Your task to perform on an android device: Open network settings Image 0: 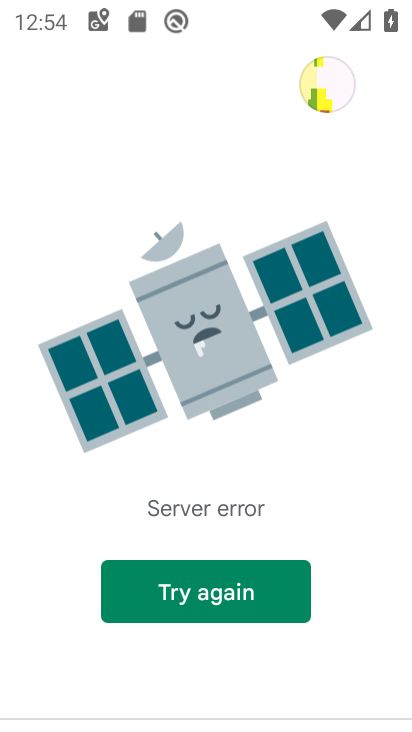
Step 0: press home button
Your task to perform on an android device: Open network settings Image 1: 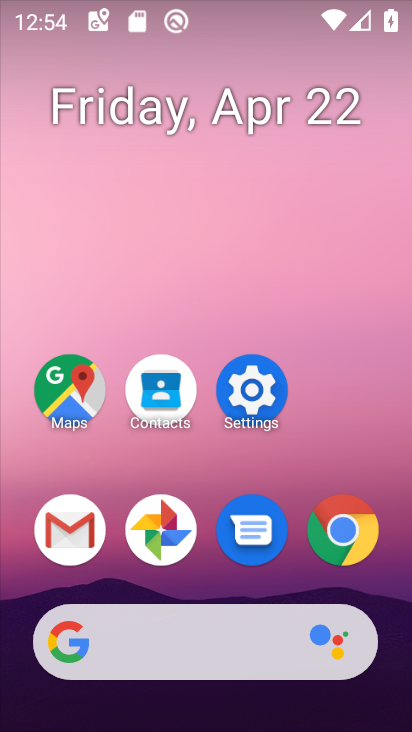
Step 1: click (250, 397)
Your task to perform on an android device: Open network settings Image 2: 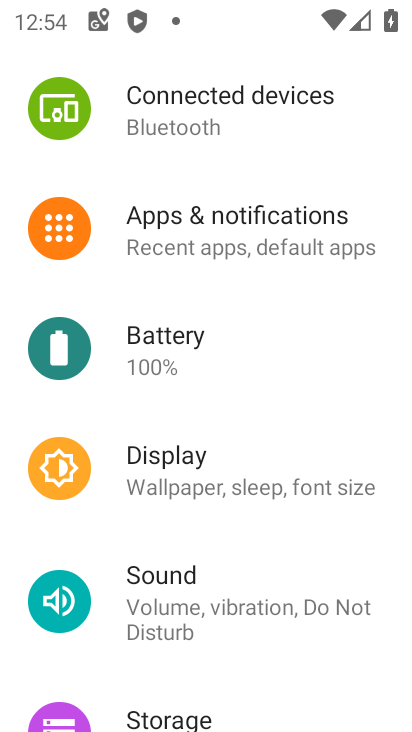
Step 2: drag from (226, 203) to (235, 616)
Your task to perform on an android device: Open network settings Image 3: 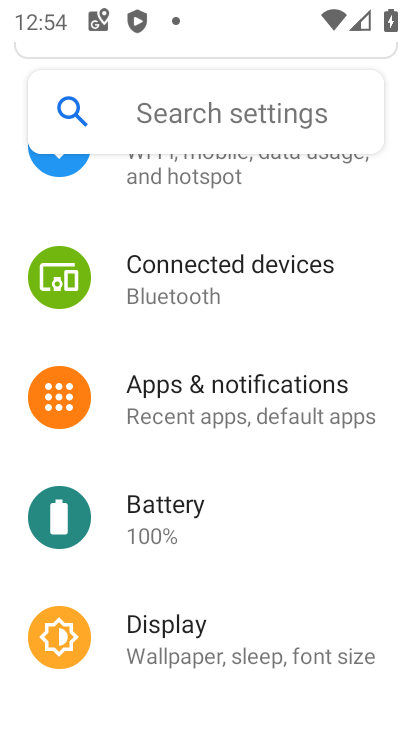
Step 3: drag from (197, 230) to (223, 717)
Your task to perform on an android device: Open network settings Image 4: 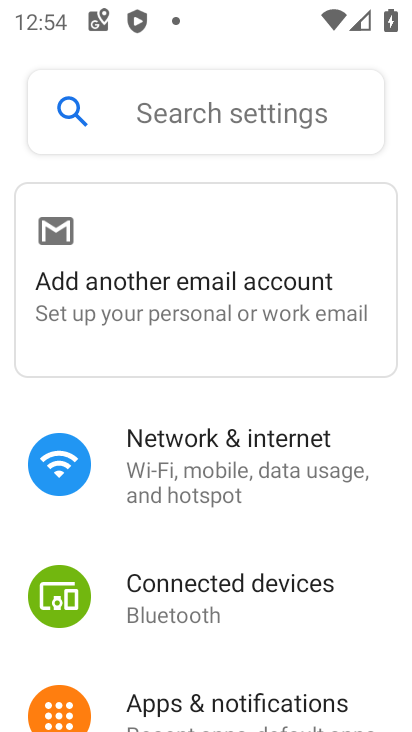
Step 4: click (197, 439)
Your task to perform on an android device: Open network settings Image 5: 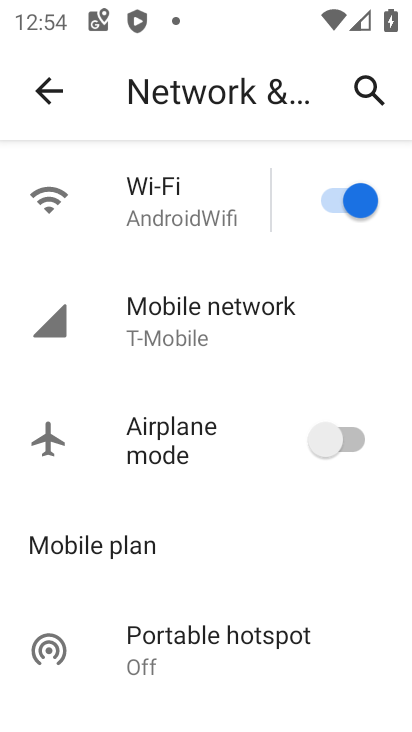
Step 5: click (250, 304)
Your task to perform on an android device: Open network settings Image 6: 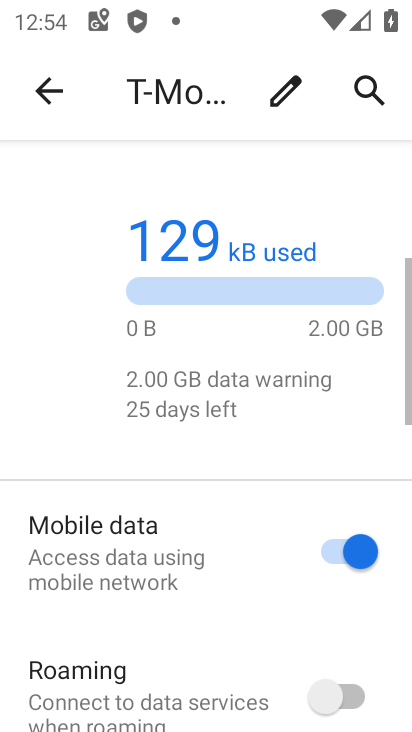
Step 6: task complete